Your task to perform on an android device: refresh tabs in the chrome app Image 0: 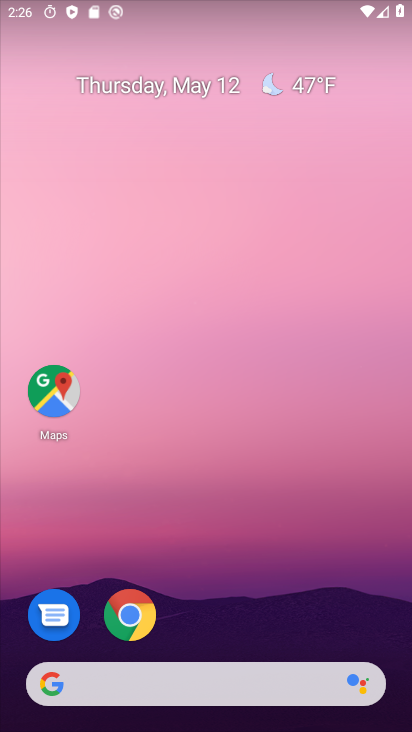
Step 0: click (127, 614)
Your task to perform on an android device: refresh tabs in the chrome app Image 1: 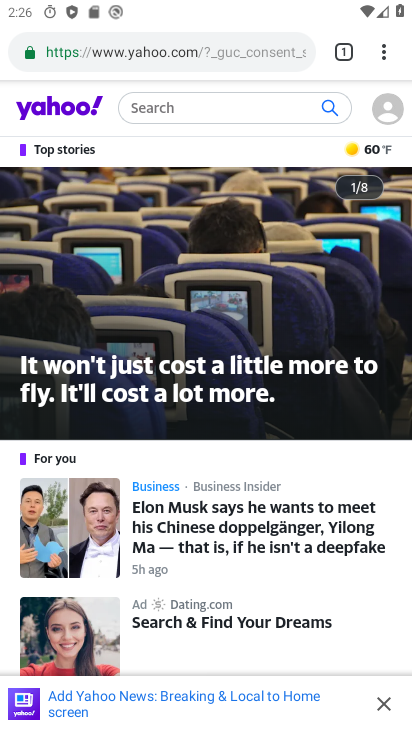
Step 1: click (375, 52)
Your task to perform on an android device: refresh tabs in the chrome app Image 2: 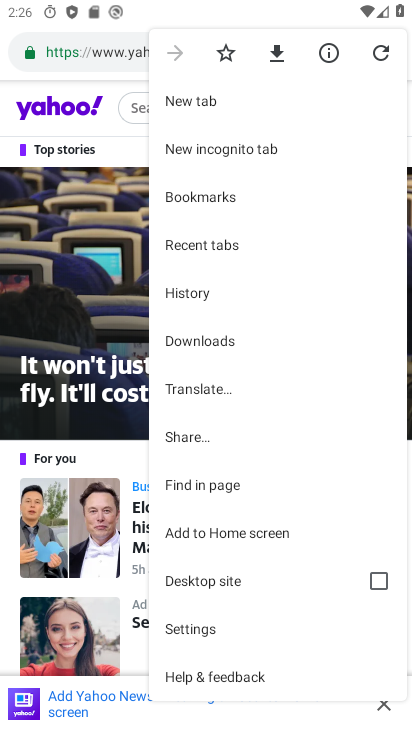
Step 2: click (373, 59)
Your task to perform on an android device: refresh tabs in the chrome app Image 3: 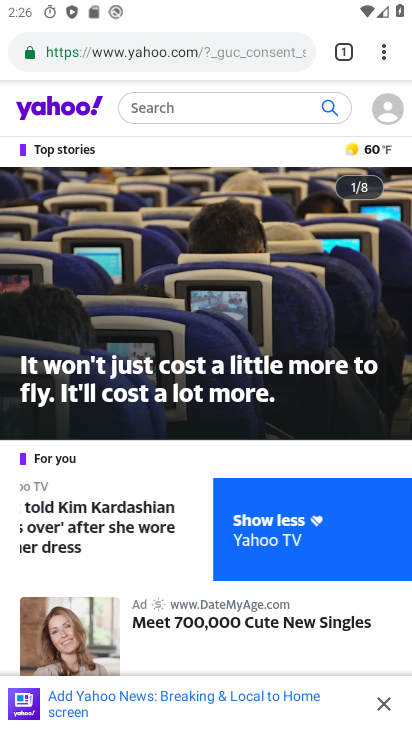
Step 3: task complete